Your task to perform on an android device: toggle notification dots Image 0: 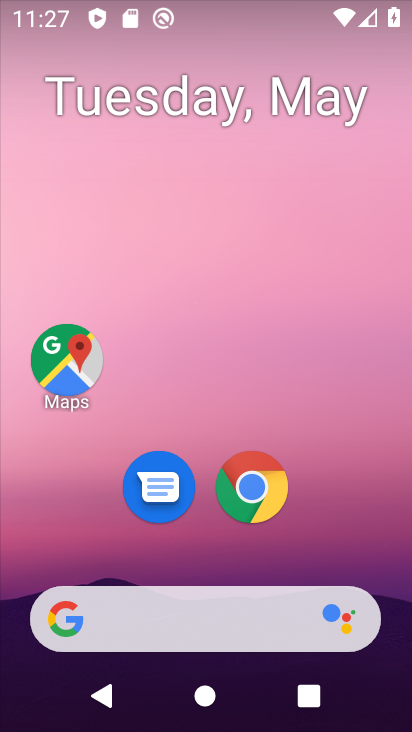
Step 0: drag from (360, 535) to (301, 173)
Your task to perform on an android device: toggle notification dots Image 1: 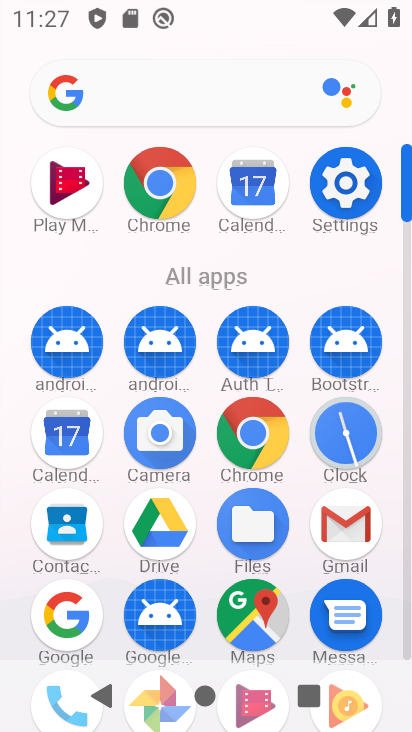
Step 1: click (319, 171)
Your task to perform on an android device: toggle notification dots Image 2: 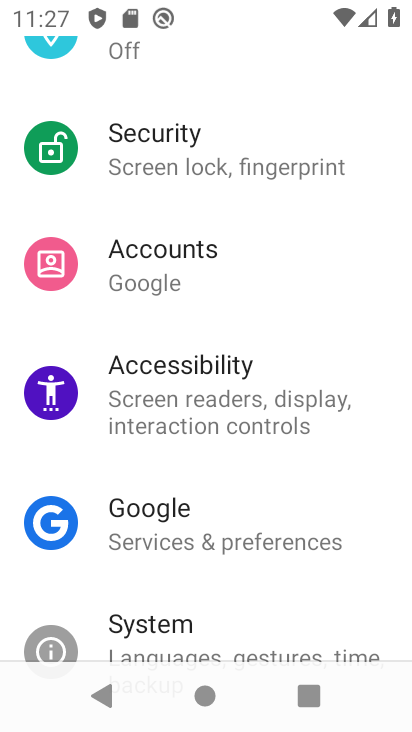
Step 2: drag from (220, 89) to (254, 254)
Your task to perform on an android device: toggle notification dots Image 3: 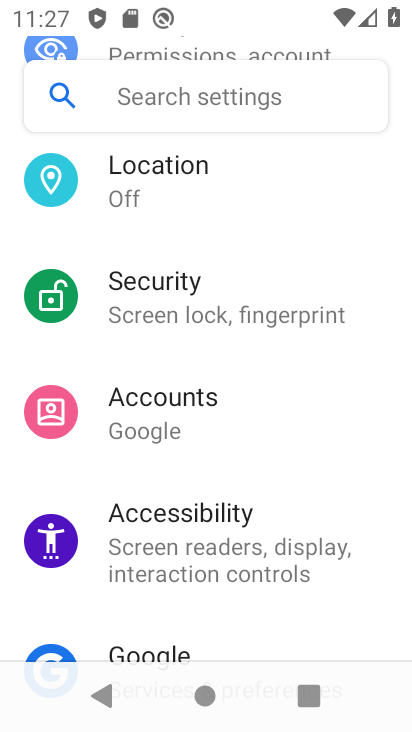
Step 3: click (254, 296)
Your task to perform on an android device: toggle notification dots Image 4: 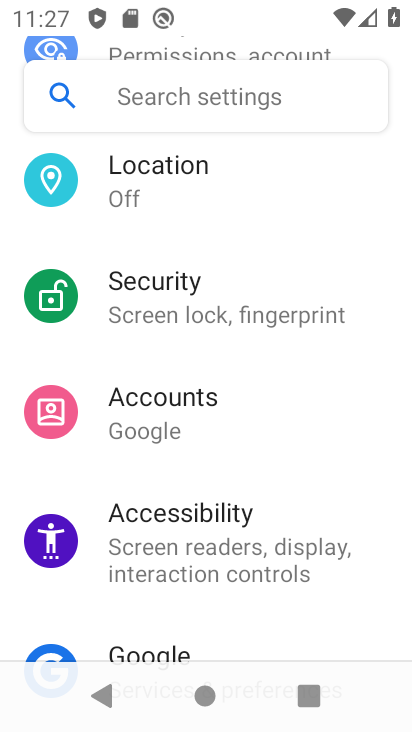
Step 4: click (244, 107)
Your task to perform on an android device: toggle notification dots Image 5: 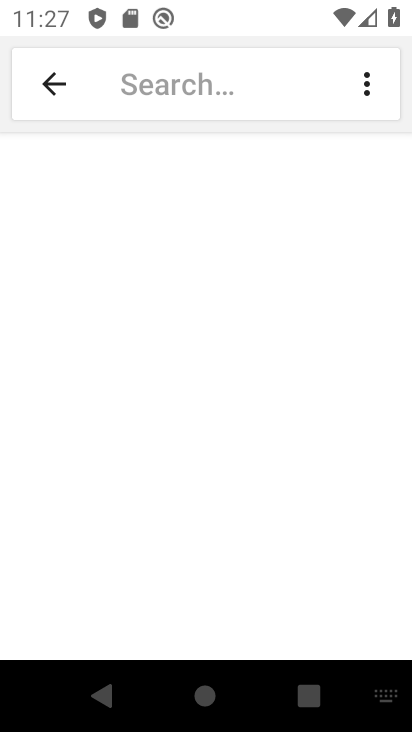
Step 5: click (218, 74)
Your task to perform on an android device: toggle notification dots Image 6: 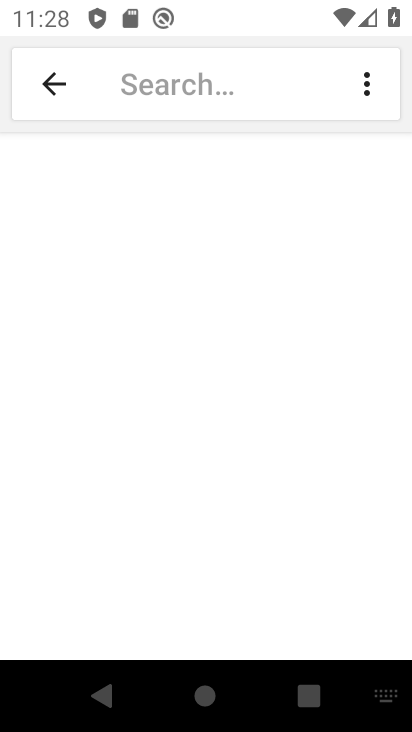
Step 6: type "notification dots"
Your task to perform on an android device: toggle notification dots Image 7: 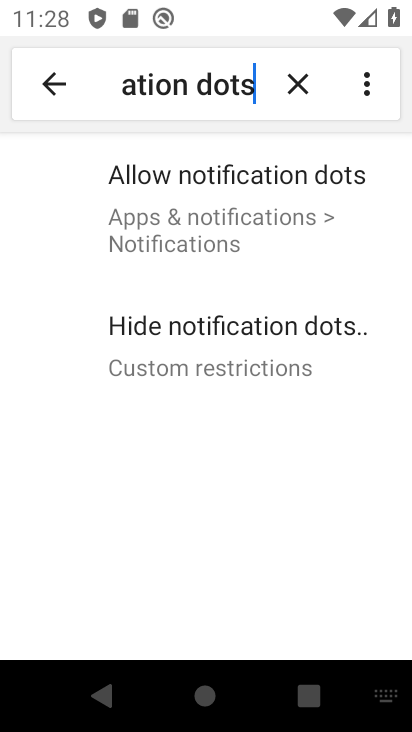
Step 7: click (175, 214)
Your task to perform on an android device: toggle notification dots Image 8: 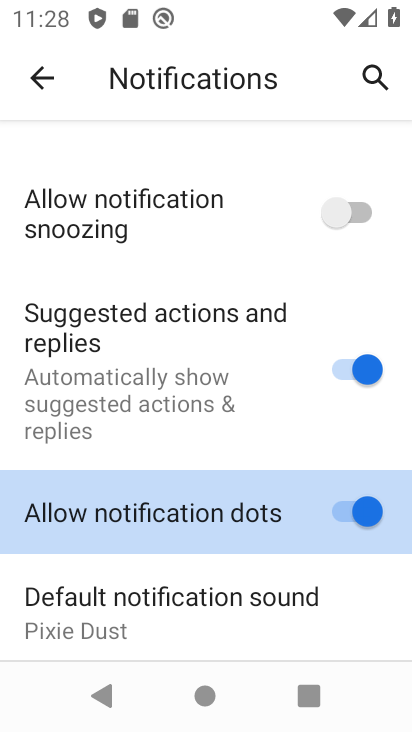
Step 8: click (351, 522)
Your task to perform on an android device: toggle notification dots Image 9: 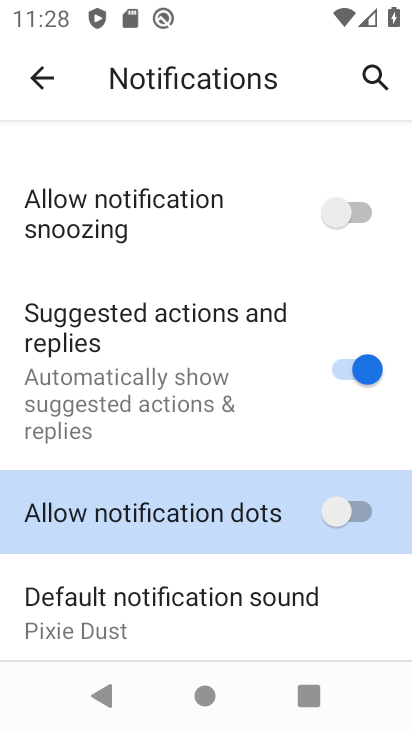
Step 9: task complete